Your task to perform on an android device: see tabs open on other devices in the chrome app Image 0: 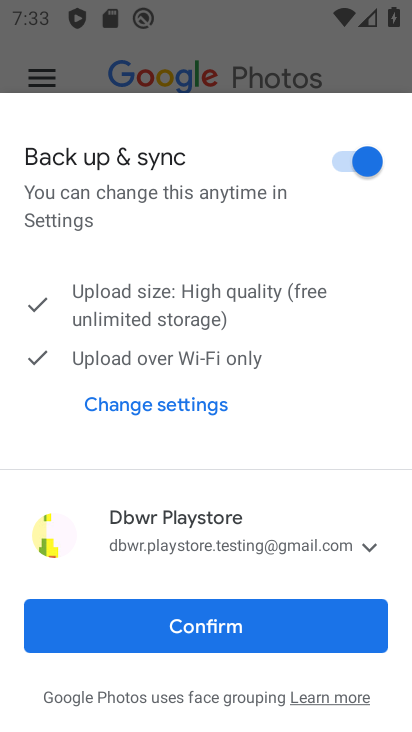
Step 0: press home button
Your task to perform on an android device: see tabs open on other devices in the chrome app Image 1: 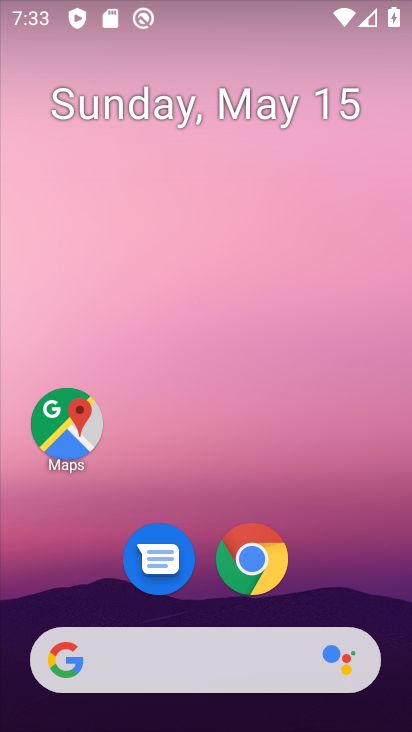
Step 1: click (247, 557)
Your task to perform on an android device: see tabs open on other devices in the chrome app Image 2: 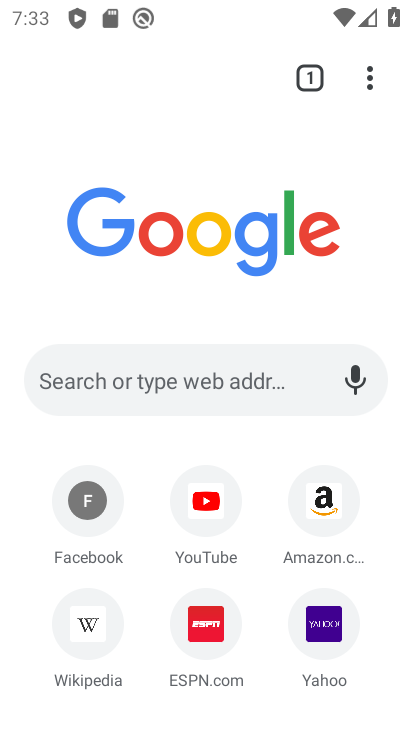
Step 2: click (376, 66)
Your task to perform on an android device: see tabs open on other devices in the chrome app Image 3: 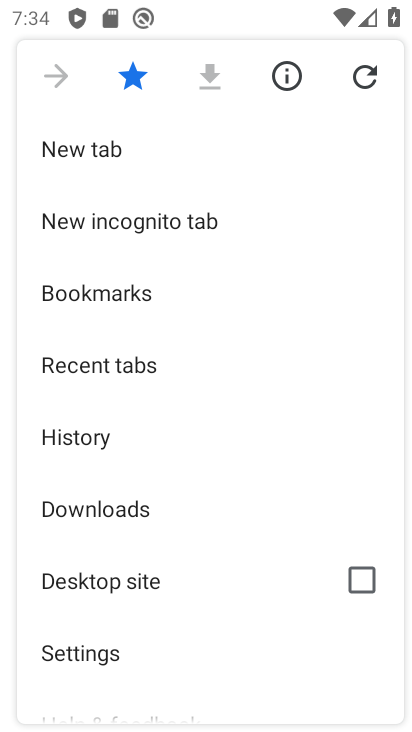
Step 3: click (181, 351)
Your task to perform on an android device: see tabs open on other devices in the chrome app Image 4: 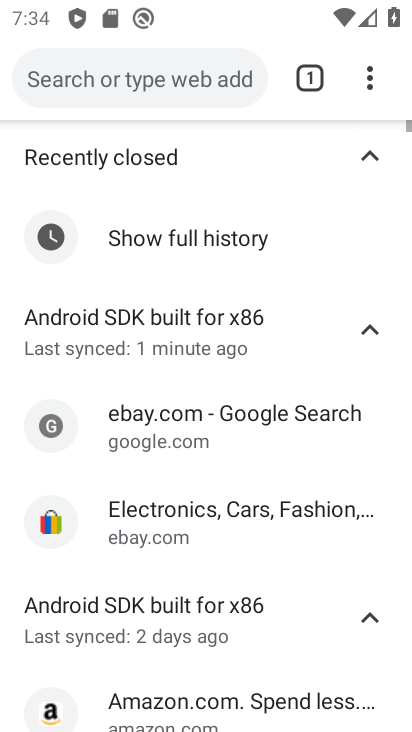
Step 4: task complete